Your task to perform on an android device: Open CNN.com Image 0: 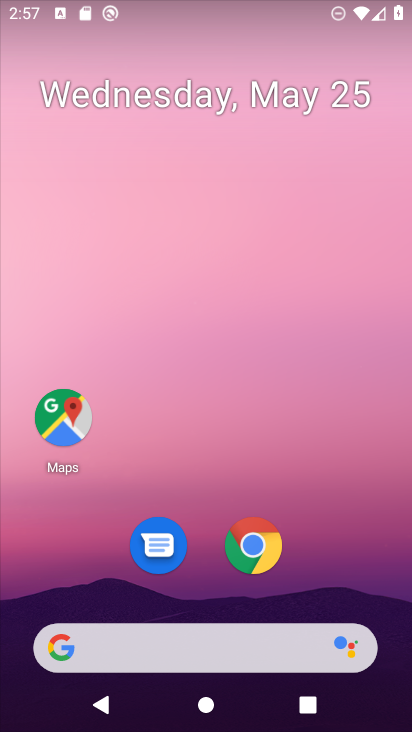
Step 0: click (237, 640)
Your task to perform on an android device: Open CNN.com Image 1: 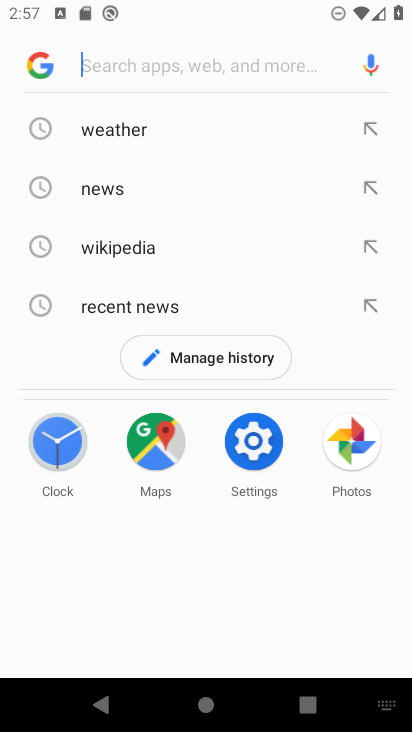
Step 1: type "cnn.com"
Your task to perform on an android device: Open CNN.com Image 2: 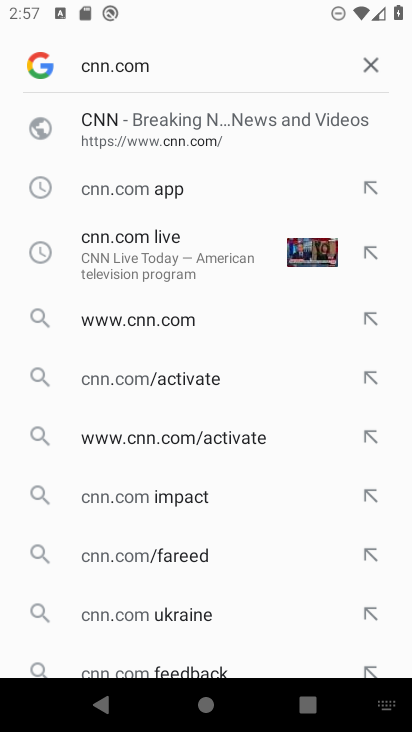
Step 2: click (180, 118)
Your task to perform on an android device: Open CNN.com Image 3: 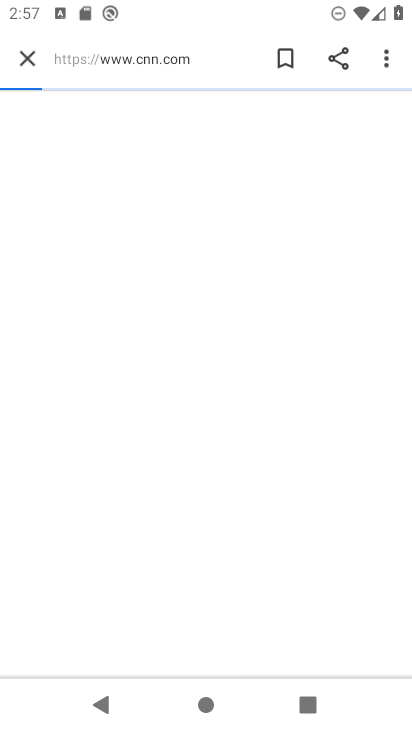
Step 3: task complete